Your task to perform on an android device: Check the weather Image 0: 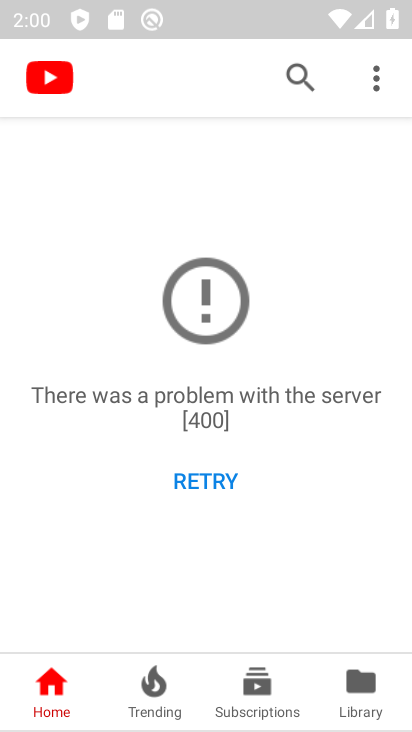
Step 0: press home button
Your task to perform on an android device: Check the weather Image 1: 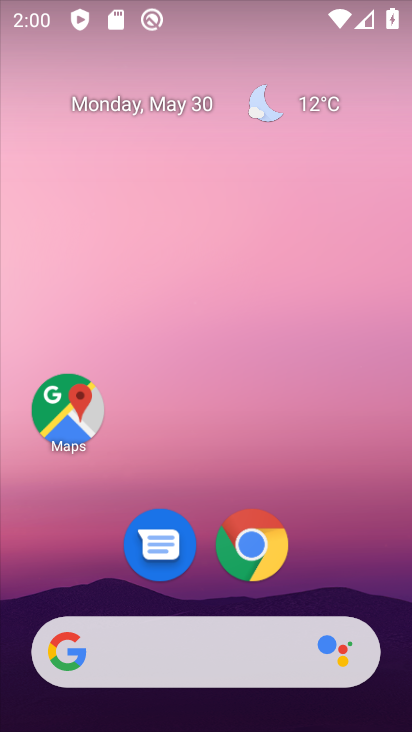
Step 1: click (341, 106)
Your task to perform on an android device: Check the weather Image 2: 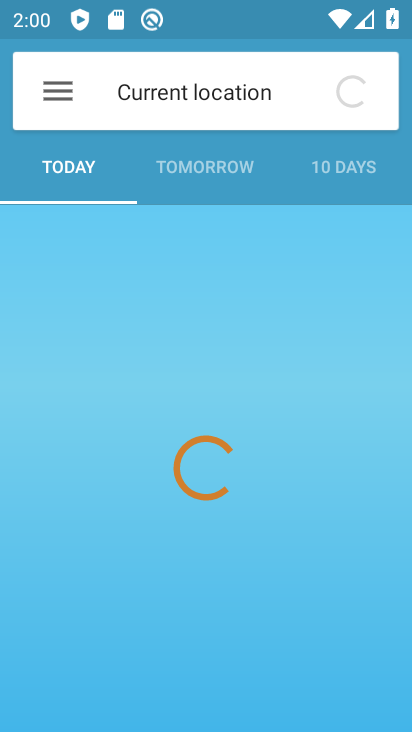
Step 2: click (341, 106)
Your task to perform on an android device: Check the weather Image 3: 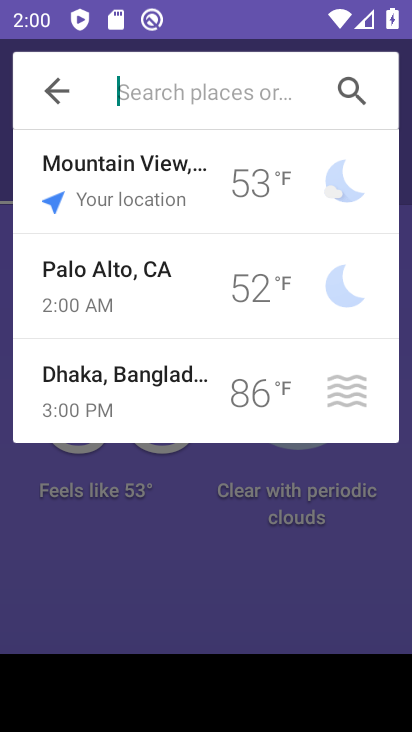
Step 3: task complete